Your task to perform on an android device: search for starred emails in the gmail app Image 0: 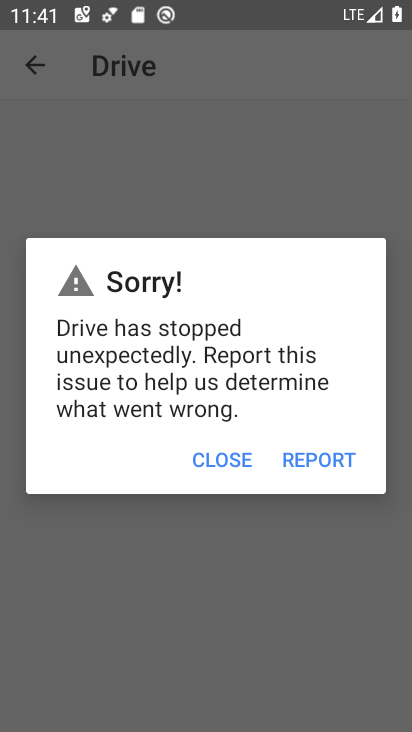
Step 0: press home button
Your task to perform on an android device: search for starred emails in the gmail app Image 1: 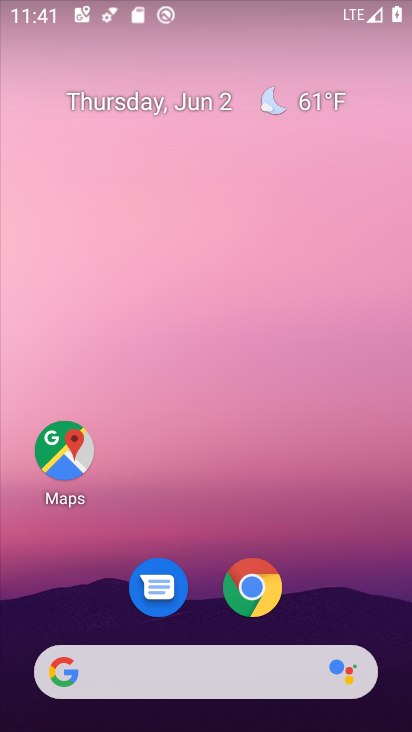
Step 1: drag from (266, 428) to (222, 2)
Your task to perform on an android device: search for starred emails in the gmail app Image 2: 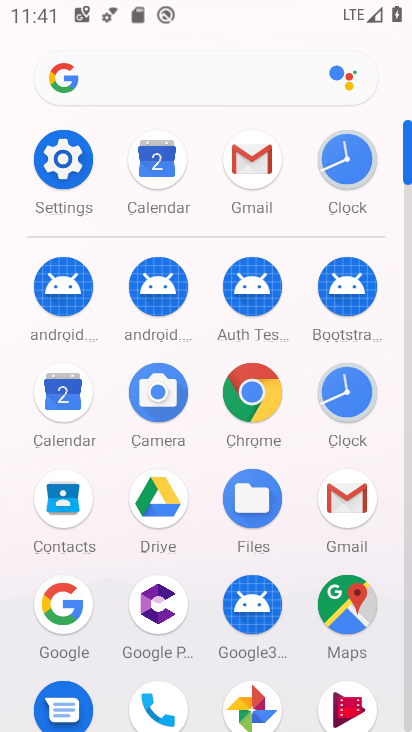
Step 2: click (250, 165)
Your task to perform on an android device: search for starred emails in the gmail app Image 3: 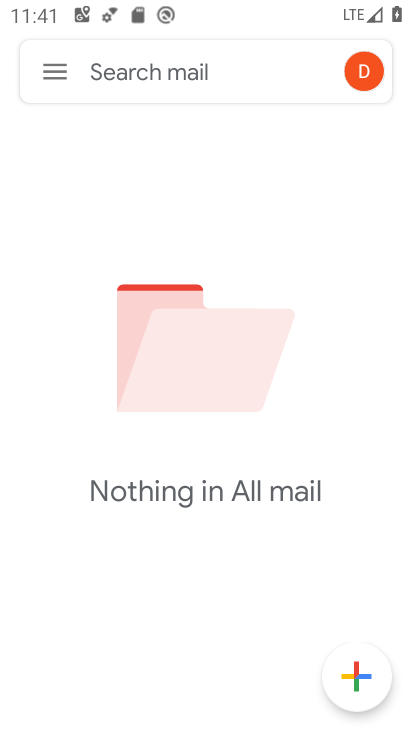
Step 3: click (58, 74)
Your task to perform on an android device: search for starred emails in the gmail app Image 4: 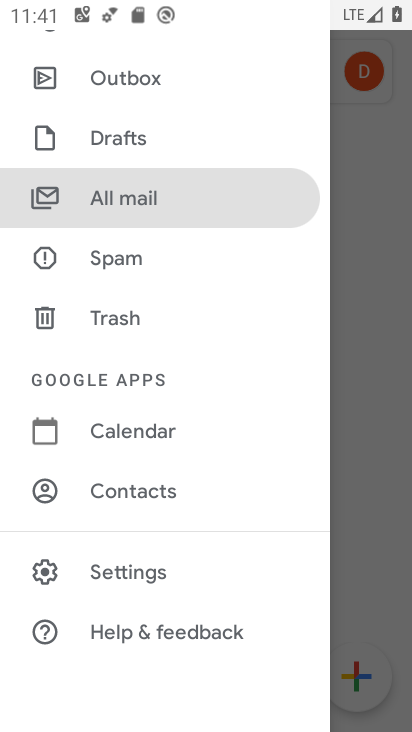
Step 4: drag from (207, 276) to (240, 693)
Your task to perform on an android device: search for starred emails in the gmail app Image 5: 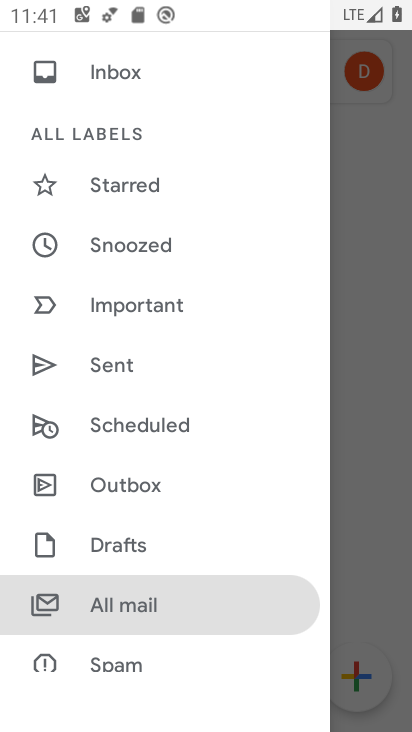
Step 5: click (192, 187)
Your task to perform on an android device: search for starred emails in the gmail app Image 6: 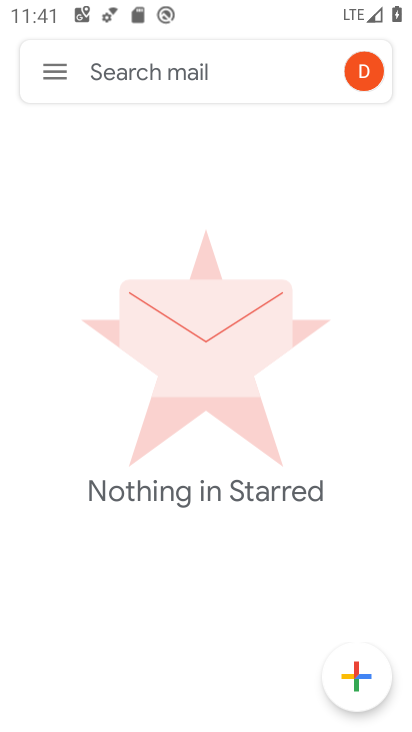
Step 6: task complete